Your task to perform on an android device: Go to ESPN.com Image 0: 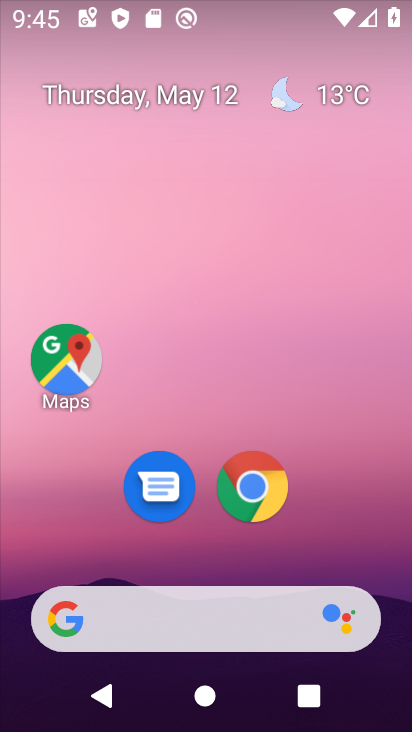
Step 0: click (273, 471)
Your task to perform on an android device: Go to ESPN.com Image 1: 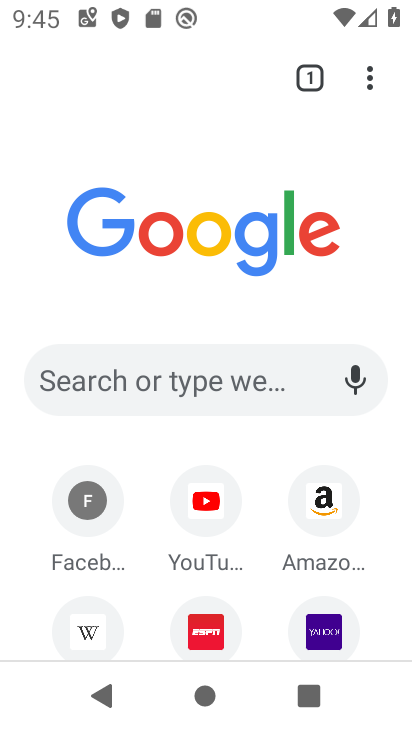
Step 1: click (213, 383)
Your task to perform on an android device: Go to ESPN.com Image 2: 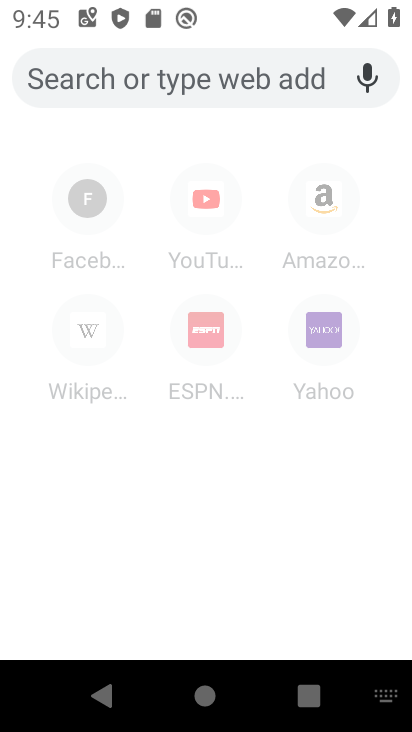
Step 2: type "espn.com"
Your task to perform on an android device: Go to ESPN.com Image 3: 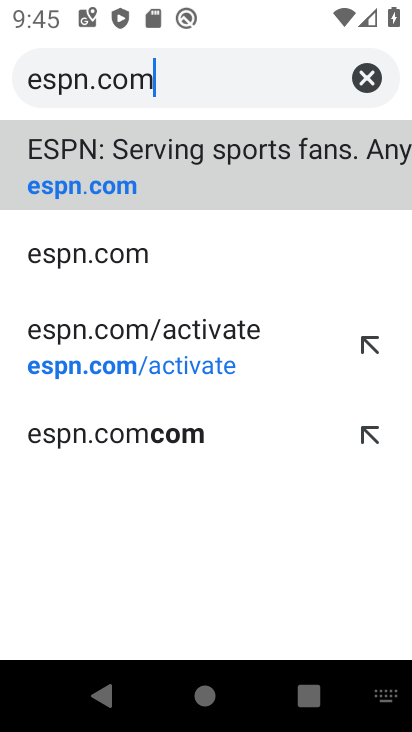
Step 3: click (168, 185)
Your task to perform on an android device: Go to ESPN.com Image 4: 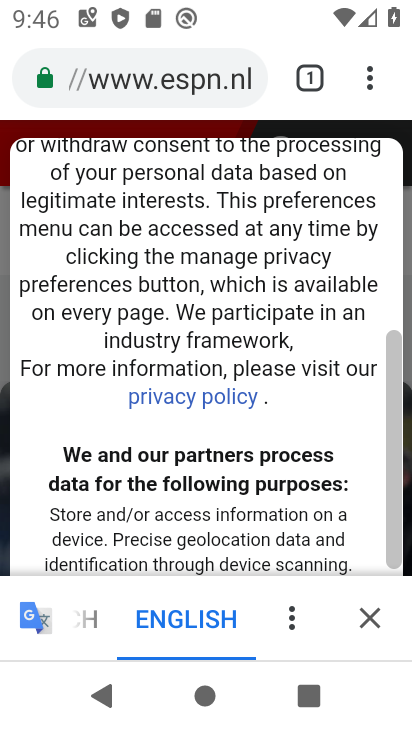
Step 4: click (373, 618)
Your task to perform on an android device: Go to ESPN.com Image 5: 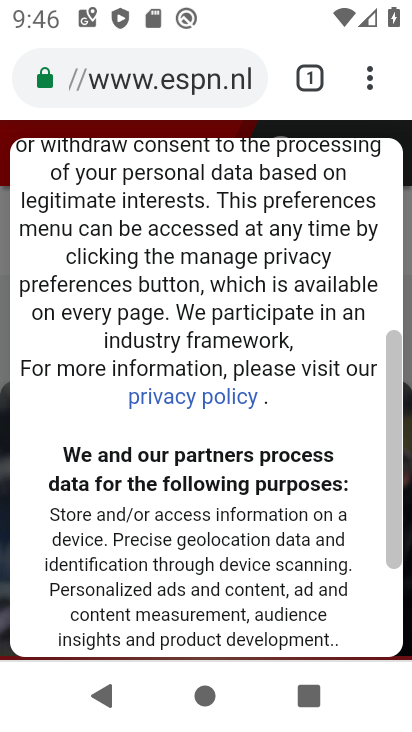
Step 5: drag from (317, 578) to (230, 305)
Your task to perform on an android device: Go to ESPN.com Image 6: 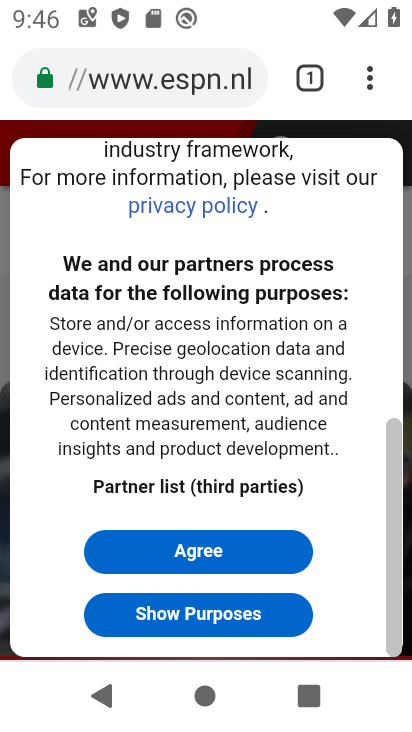
Step 6: click (224, 552)
Your task to perform on an android device: Go to ESPN.com Image 7: 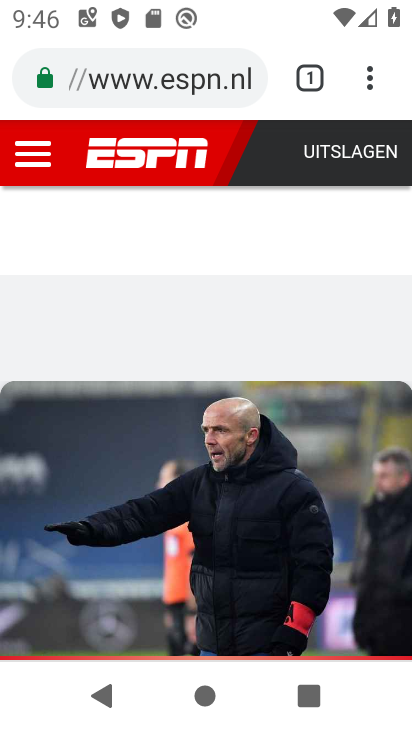
Step 7: task complete